Your task to perform on an android device: Search for macbook on newegg, select the first entry, and add it to the cart. Image 0: 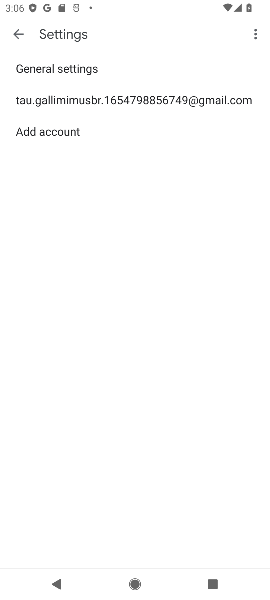
Step 0: press home button
Your task to perform on an android device: Search for macbook on newegg, select the first entry, and add it to the cart. Image 1: 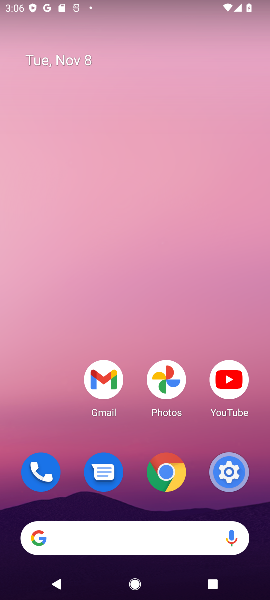
Step 1: click (88, 540)
Your task to perform on an android device: Search for macbook on newegg, select the first entry, and add it to the cart. Image 2: 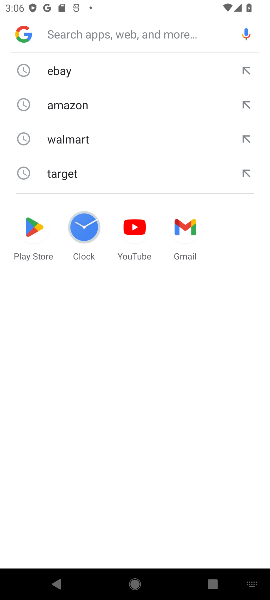
Step 2: type "newegg"
Your task to perform on an android device: Search for macbook on newegg, select the first entry, and add it to the cart. Image 3: 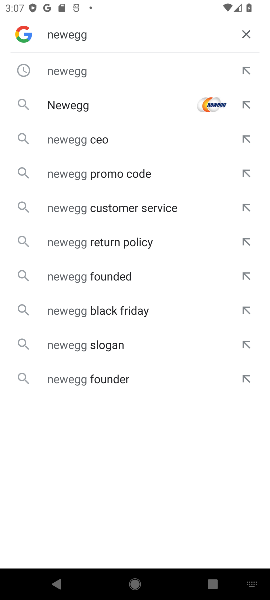
Step 3: click (74, 107)
Your task to perform on an android device: Search for macbook on newegg, select the first entry, and add it to the cart. Image 4: 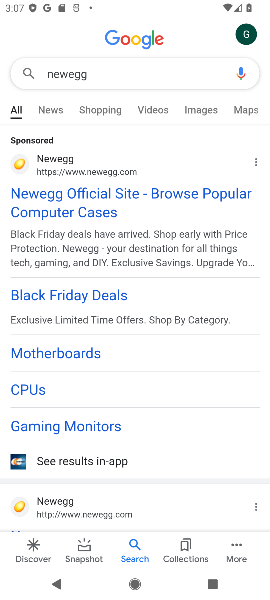
Step 4: click (77, 210)
Your task to perform on an android device: Search for macbook on newegg, select the first entry, and add it to the cart. Image 5: 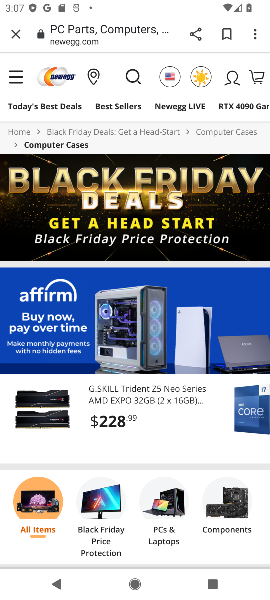
Step 5: click (144, 86)
Your task to perform on an android device: Search for macbook on newegg, select the first entry, and add it to the cart. Image 6: 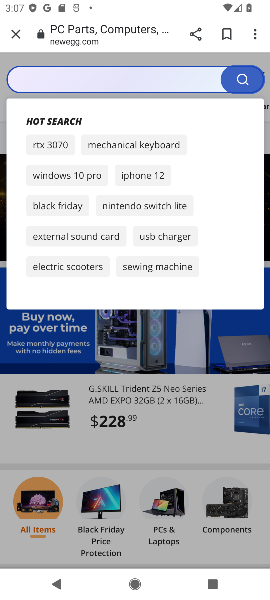
Step 6: type "macbook"
Your task to perform on an android device: Search for macbook on newegg, select the first entry, and add it to the cart. Image 7: 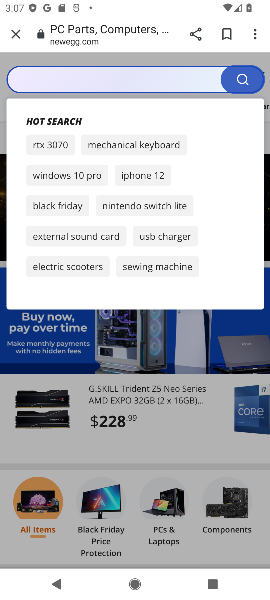
Step 7: task complete